Your task to perform on an android device: Show me recent news Image 0: 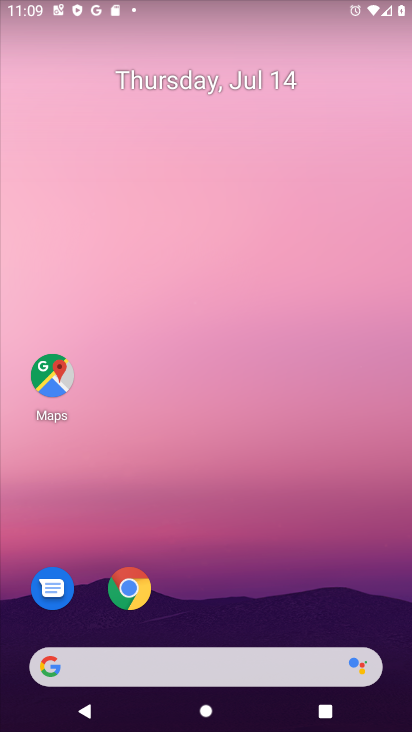
Step 0: press home button
Your task to perform on an android device: Show me recent news Image 1: 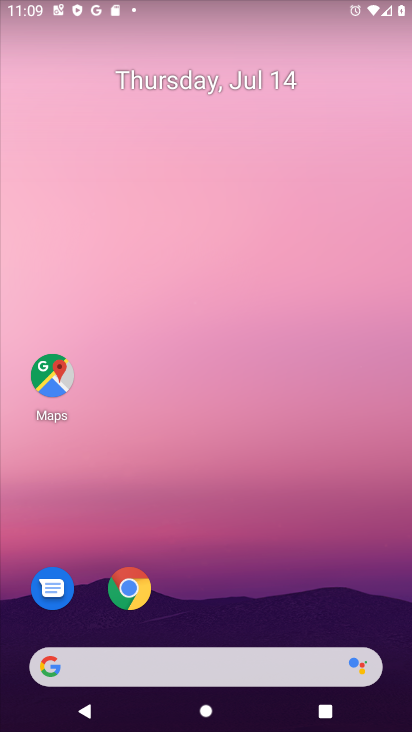
Step 1: click (148, 574)
Your task to perform on an android device: Show me recent news Image 2: 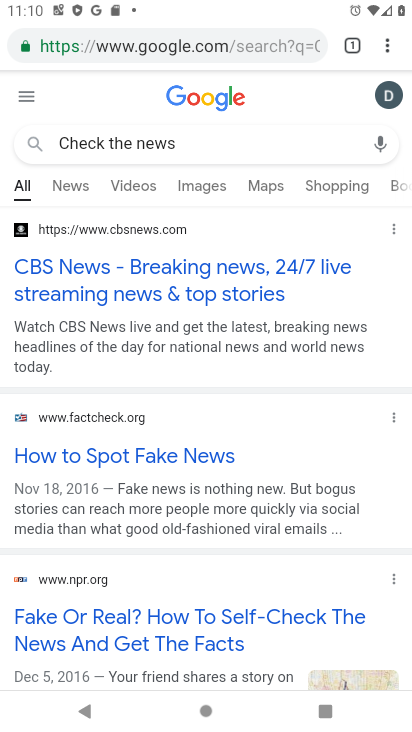
Step 2: click (100, 54)
Your task to perform on an android device: Show me recent news Image 3: 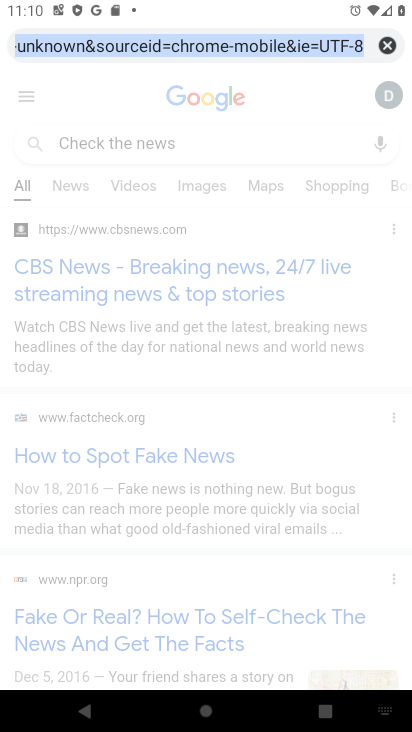
Step 3: type "Show me recent news"
Your task to perform on an android device: Show me recent news Image 4: 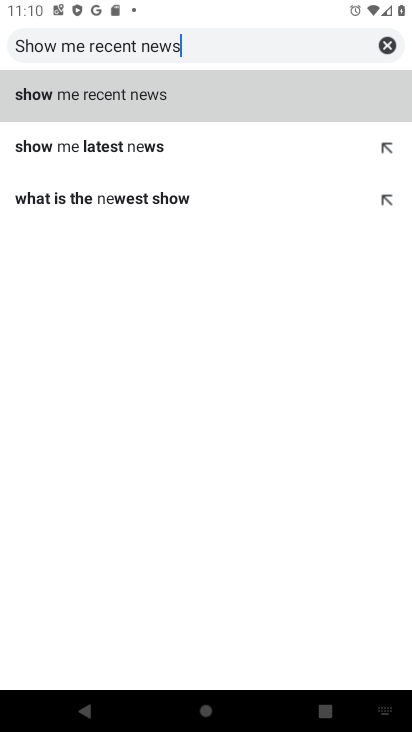
Step 4: type ""
Your task to perform on an android device: Show me recent news Image 5: 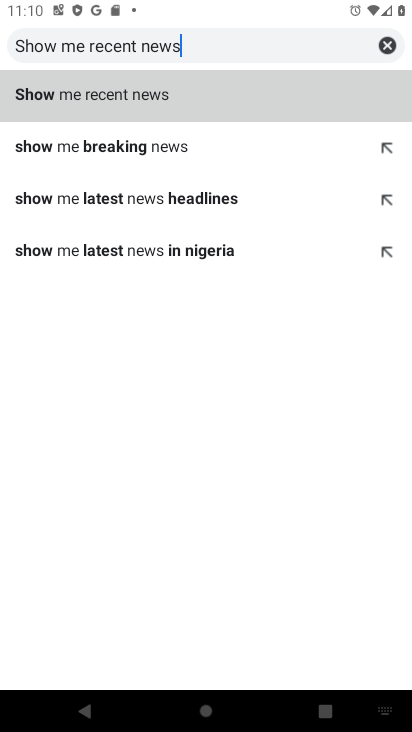
Step 5: click (332, 98)
Your task to perform on an android device: Show me recent news Image 6: 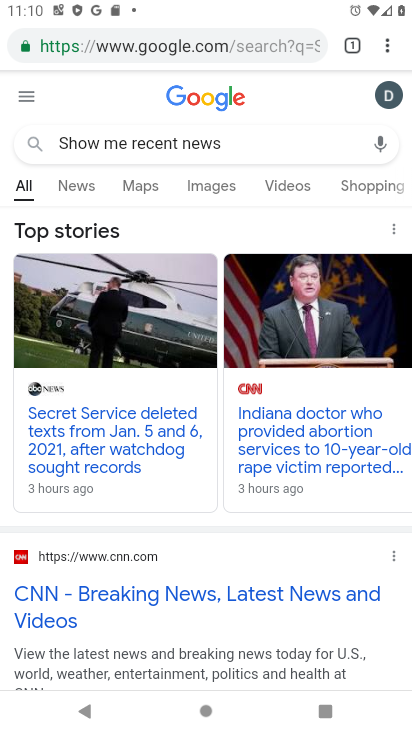
Step 6: task complete